Your task to perform on an android device: Open the Play Movies app and select the watchlist tab. Image 0: 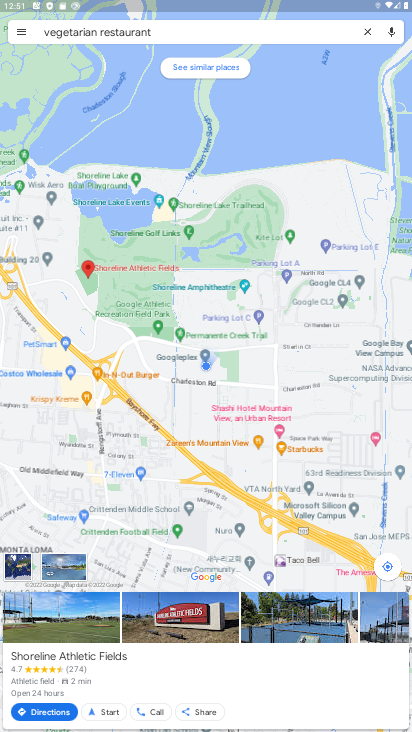
Step 0: press back button
Your task to perform on an android device: Open the Play Movies app and select the watchlist tab. Image 1: 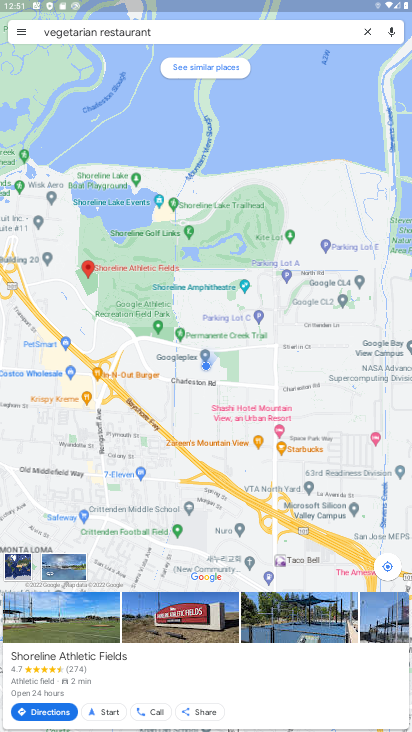
Step 1: press back button
Your task to perform on an android device: Open the Play Movies app and select the watchlist tab. Image 2: 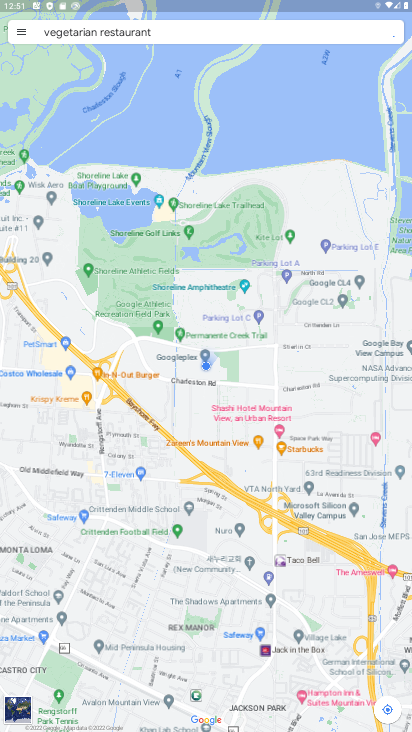
Step 2: press back button
Your task to perform on an android device: Open the Play Movies app and select the watchlist tab. Image 3: 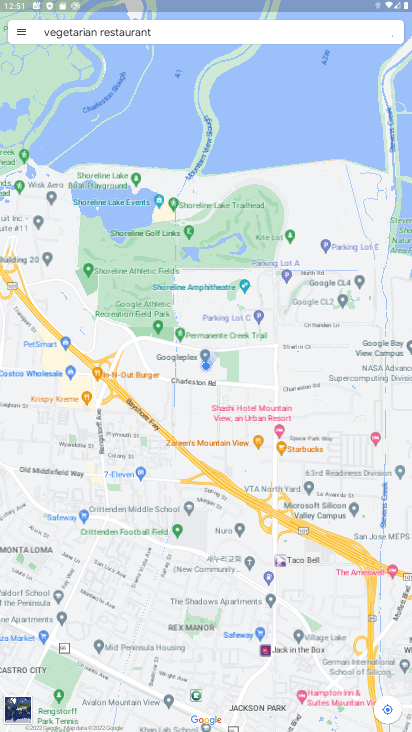
Step 3: press home button
Your task to perform on an android device: Open the Play Movies app and select the watchlist tab. Image 4: 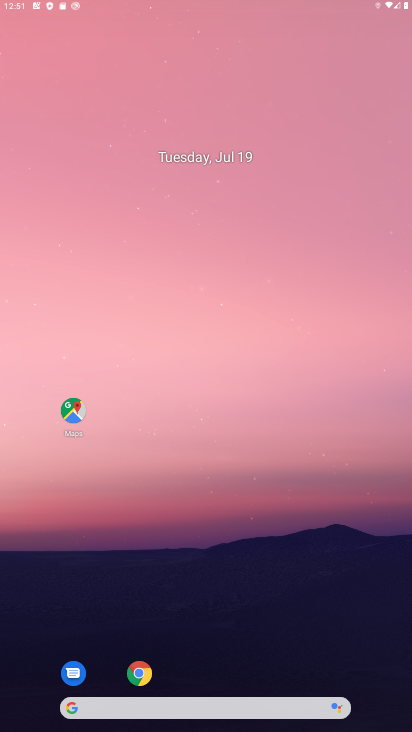
Step 4: press home button
Your task to perform on an android device: Open the Play Movies app and select the watchlist tab. Image 5: 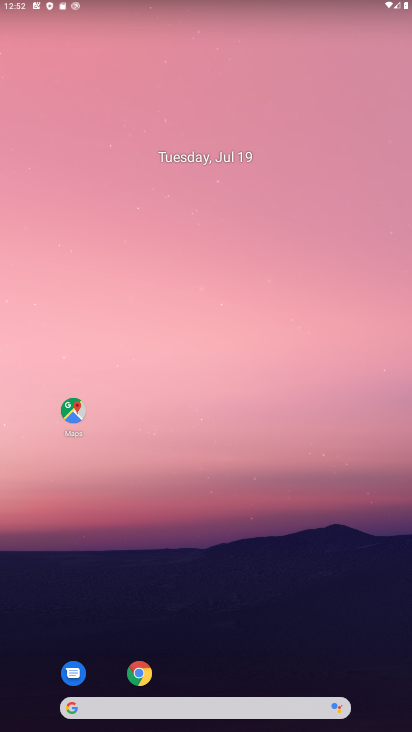
Step 5: drag from (228, 620) to (226, 87)
Your task to perform on an android device: Open the Play Movies app and select the watchlist tab. Image 6: 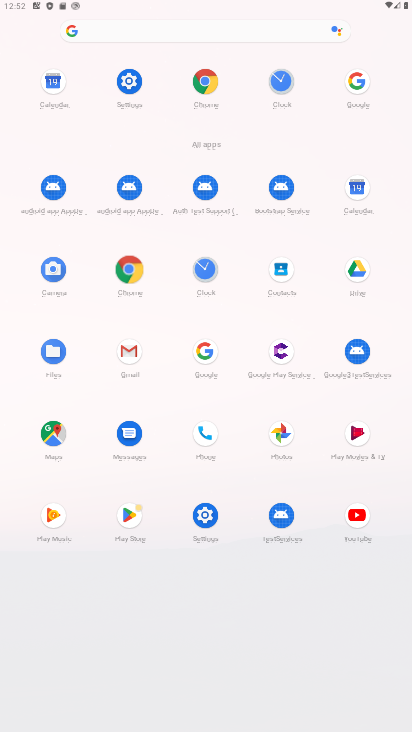
Step 6: drag from (222, 520) to (163, 257)
Your task to perform on an android device: Open the Play Movies app and select the watchlist tab. Image 7: 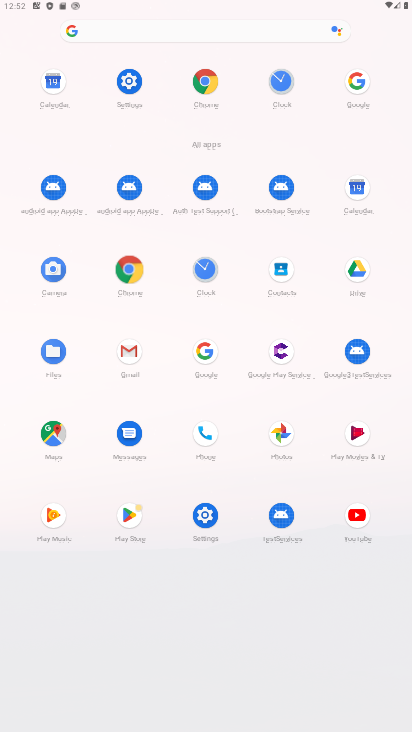
Step 7: click (359, 425)
Your task to perform on an android device: Open the Play Movies app and select the watchlist tab. Image 8: 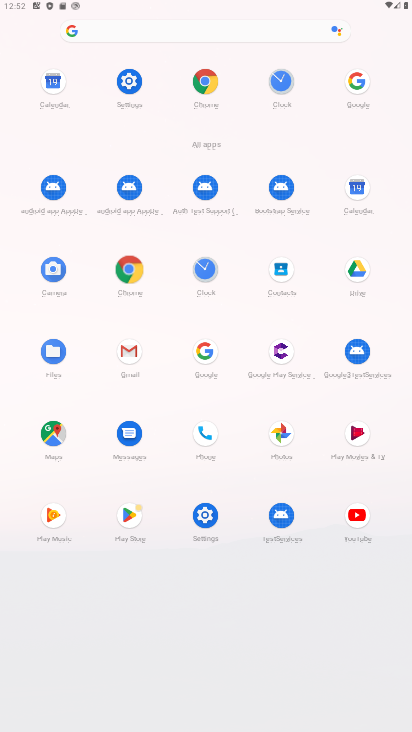
Step 8: click (360, 425)
Your task to perform on an android device: Open the Play Movies app and select the watchlist tab. Image 9: 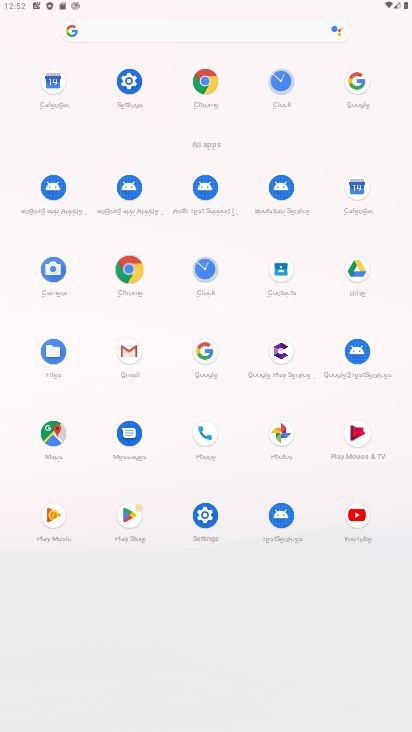
Step 9: click (361, 425)
Your task to perform on an android device: Open the Play Movies app and select the watchlist tab. Image 10: 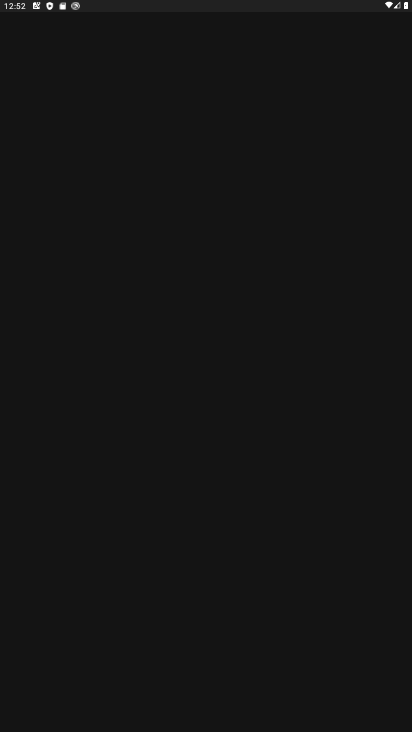
Step 10: click (363, 427)
Your task to perform on an android device: Open the Play Movies app and select the watchlist tab. Image 11: 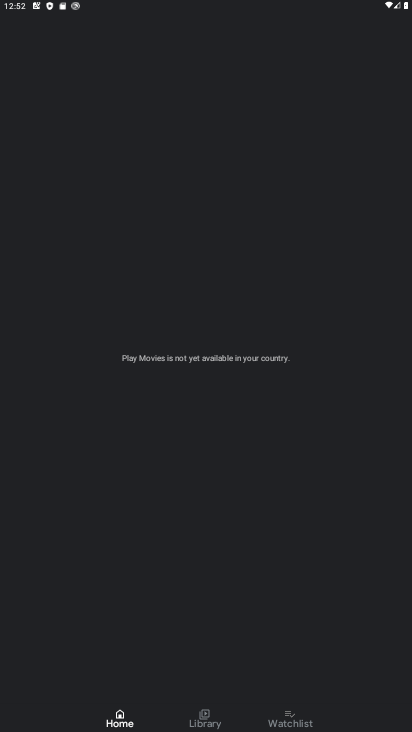
Step 11: click (295, 722)
Your task to perform on an android device: Open the Play Movies app and select the watchlist tab. Image 12: 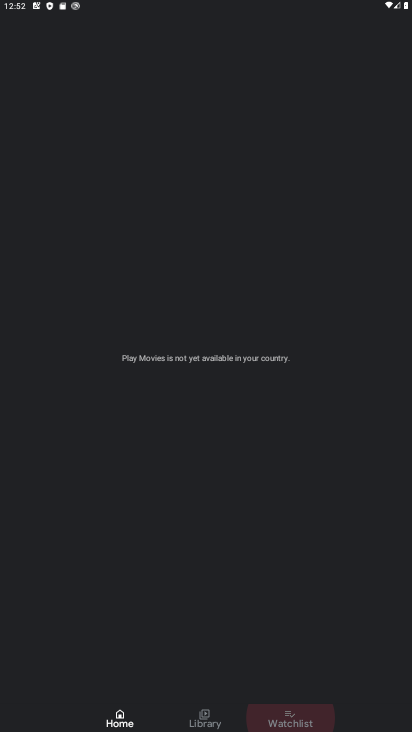
Step 12: click (295, 722)
Your task to perform on an android device: Open the Play Movies app and select the watchlist tab. Image 13: 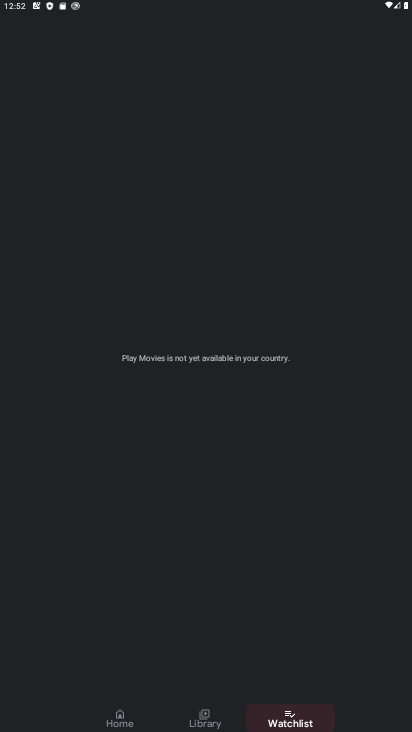
Step 13: click (295, 722)
Your task to perform on an android device: Open the Play Movies app and select the watchlist tab. Image 14: 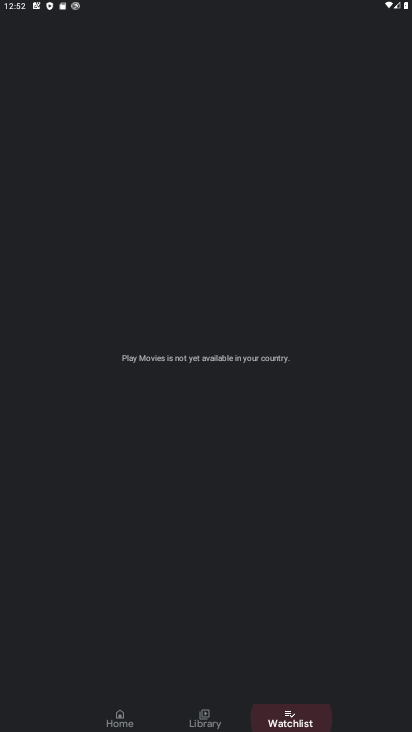
Step 14: click (297, 721)
Your task to perform on an android device: Open the Play Movies app and select the watchlist tab. Image 15: 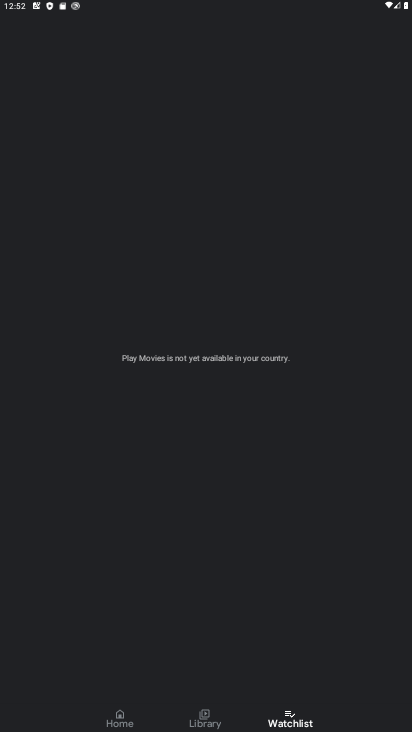
Step 15: click (300, 721)
Your task to perform on an android device: Open the Play Movies app and select the watchlist tab. Image 16: 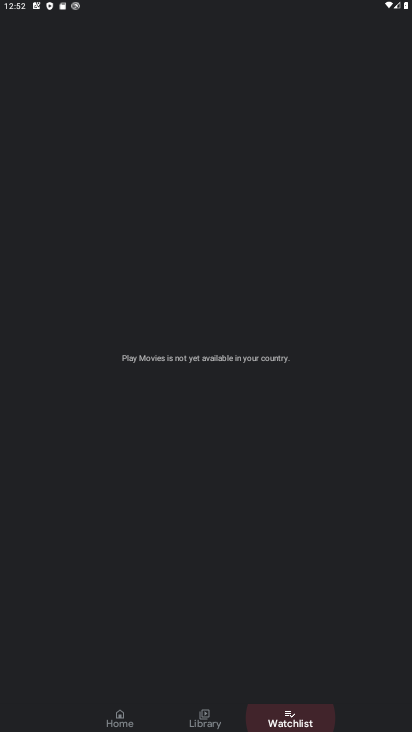
Step 16: click (302, 723)
Your task to perform on an android device: Open the Play Movies app and select the watchlist tab. Image 17: 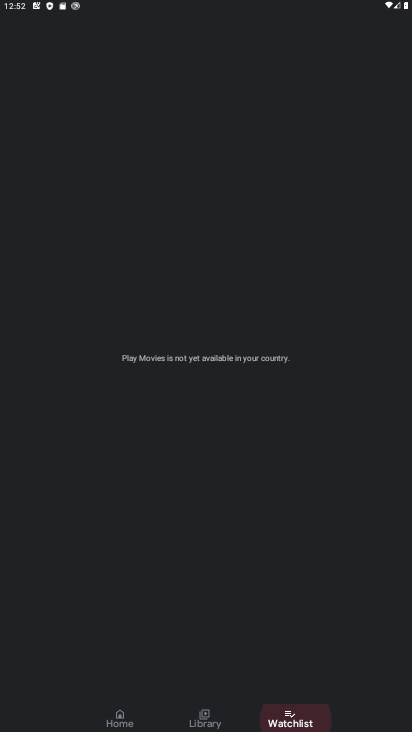
Step 17: click (303, 724)
Your task to perform on an android device: Open the Play Movies app and select the watchlist tab. Image 18: 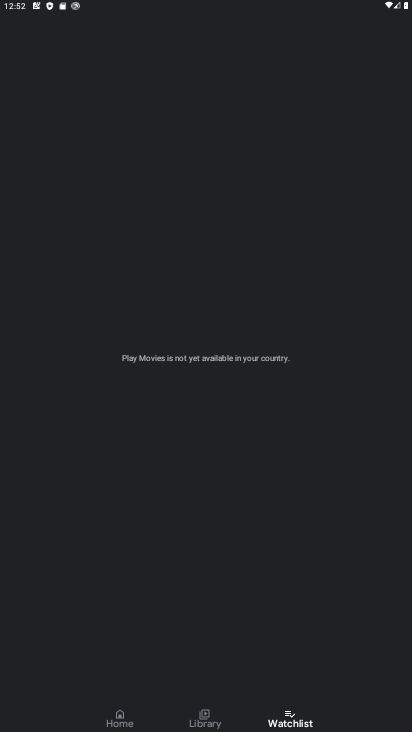
Step 18: click (307, 727)
Your task to perform on an android device: Open the Play Movies app and select the watchlist tab. Image 19: 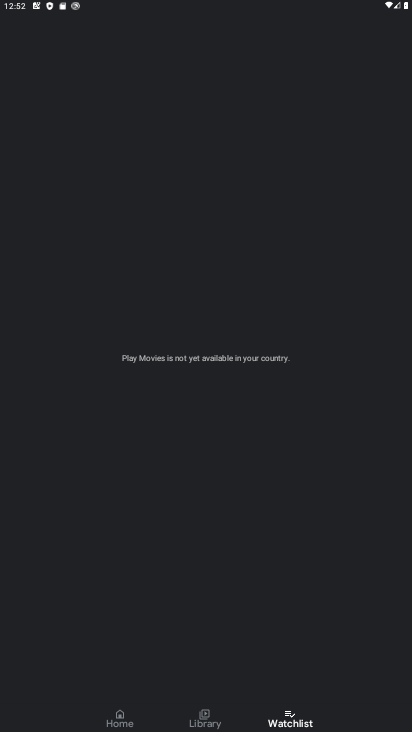
Step 19: click (312, 725)
Your task to perform on an android device: Open the Play Movies app and select the watchlist tab. Image 20: 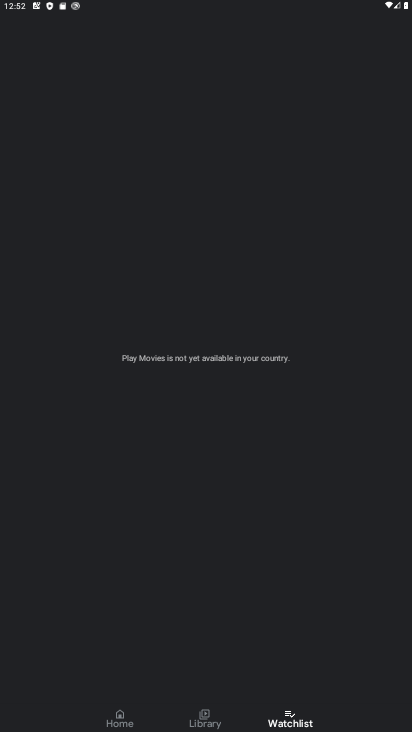
Step 20: click (293, 711)
Your task to perform on an android device: Open the Play Movies app and select the watchlist tab. Image 21: 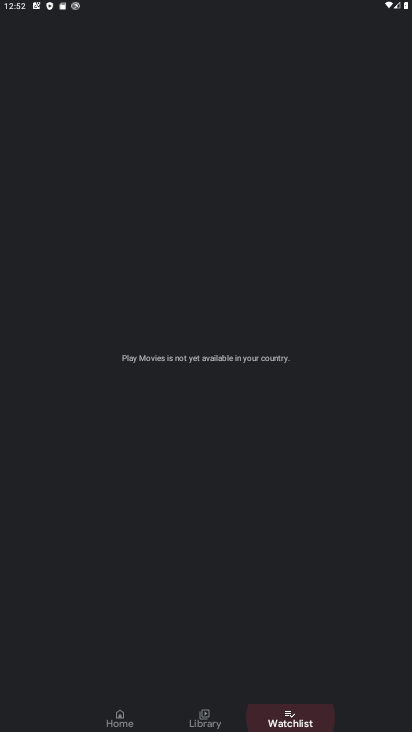
Step 21: click (290, 717)
Your task to perform on an android device: Open the Play Movies app and select the watchlist tab. Image 22: 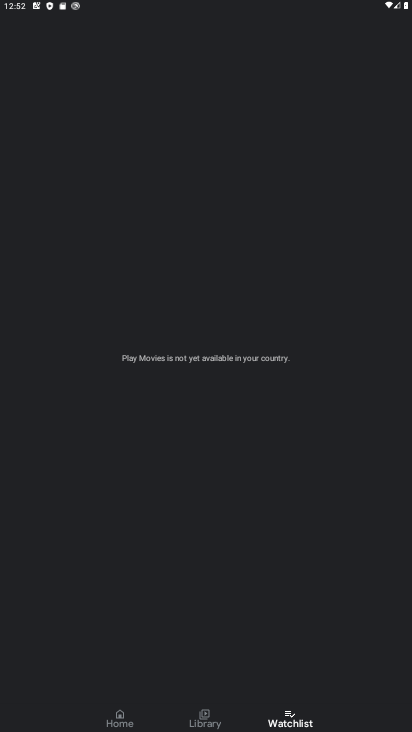
Step 22: click (285, 708)
Your task to perform on an android device: Open the Play Movies app and select the watchlist tab. Image 23: 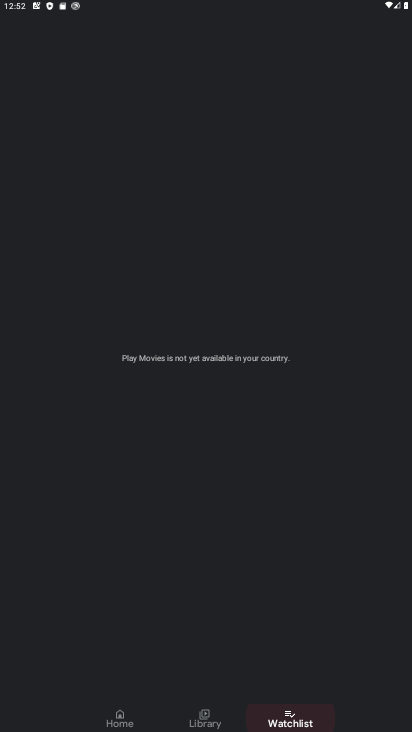
Step 23: click (285, 715)
Your task to perform on an android device: Open the Play Movies app and select the watchlist tab. Image 24: 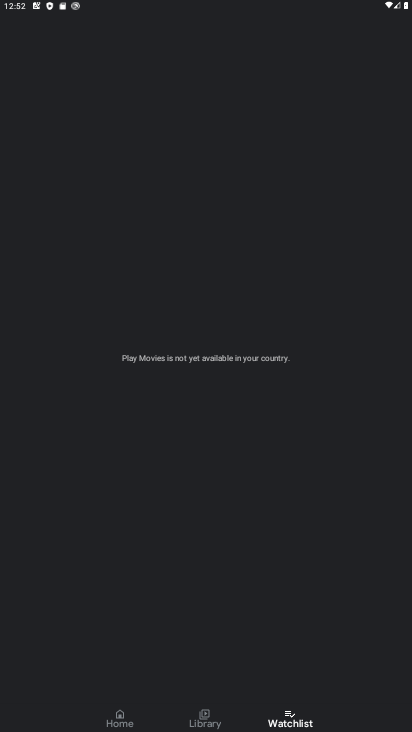
Step 24: click (286, 719)
Your task to perform on an android device: Open the Play Movies app and select the watchlist tab. Image 25: 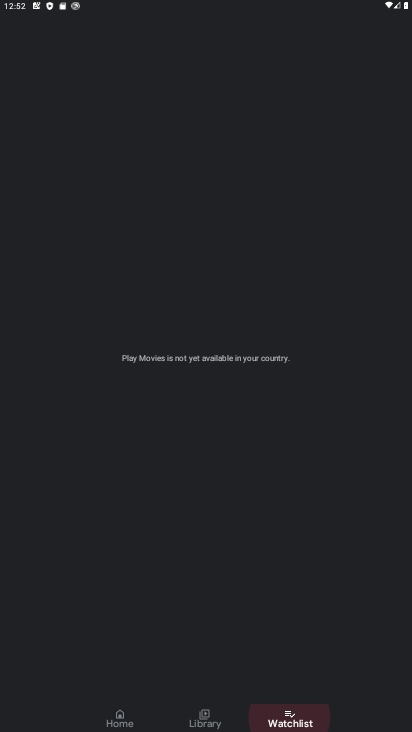
Step 25: click (286, 719)
Your task to perform on an android device: Open the Play Movies app and select the watchlist tab. Image 26: 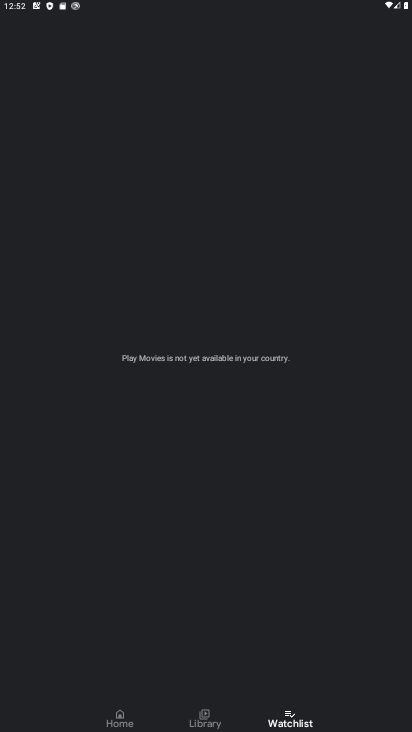
Step 26: task complete